Your task to perform on an android device: open a bookmark in the chrome app Image 0: 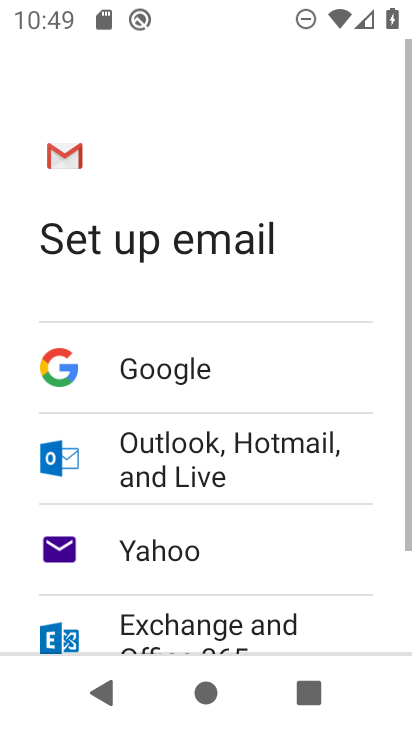
Step 0: press home button
Your task to perform on an android device: open a bookmark in the chrome app Image 1: 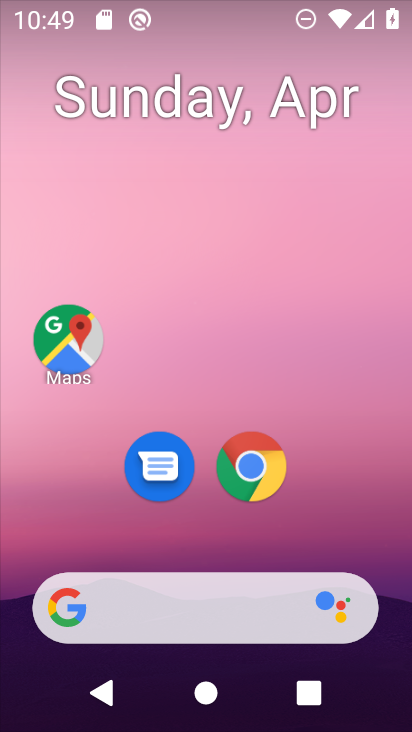
Step 1: drag from (344, 514) to (349, 118)
Your task to perform on an android device: open a bookmark in the chrome app Image 2: 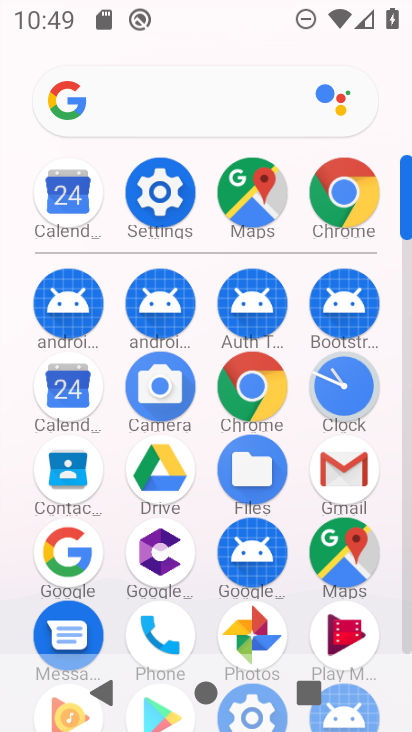
Step 2: click (347, 191)
Your task to perform on an android device: open a bookmark in the chrome app Image 3: 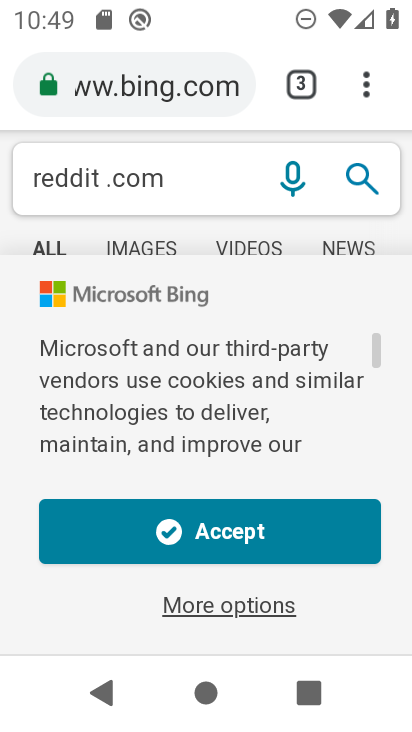
Step 3: click (365, 89)
Your task to perform on an android device: open a bookmark in the chrome app Image 4: 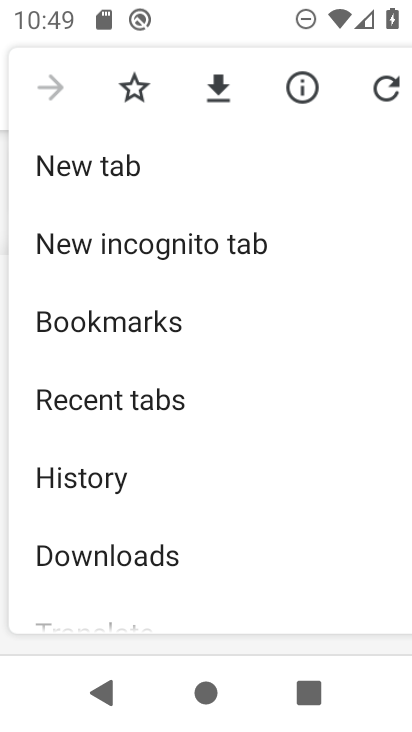
Step 4: click (161, 318)
Your task to perform on an android device: open a bookmark in the chrome app Image 5: 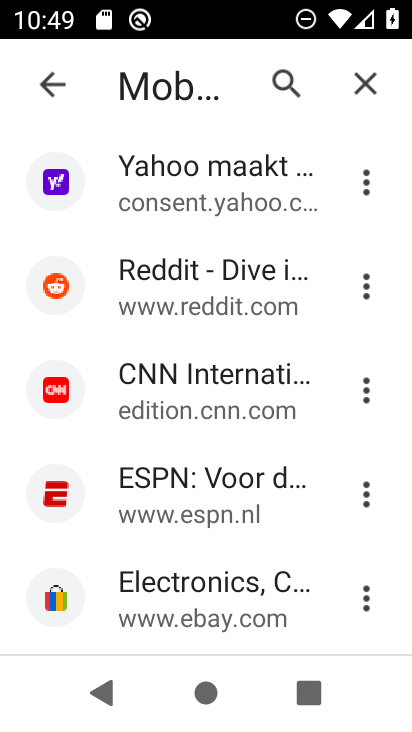
Step 5: task complete